Your task to perform on an android device: change the clock style Image 0: 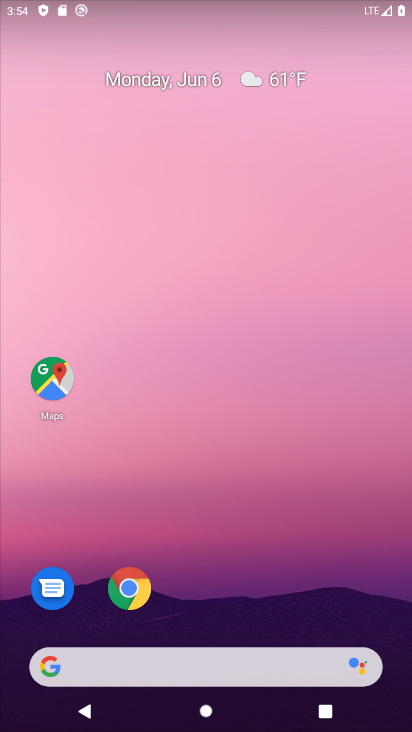
Step 0: drag from (243, 530) to (213, 294)
Your task to perform on an android device: change the clock style Image 1: 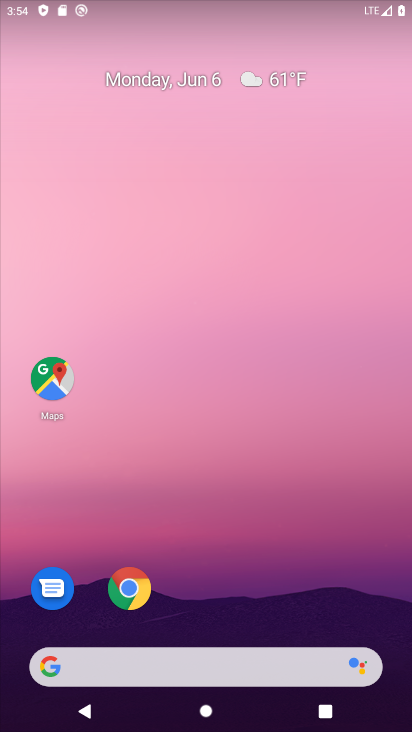
Step 1: drag from (243, 633) to (157, 75)
Your task to perform on an android device: change the clock style Image 2: 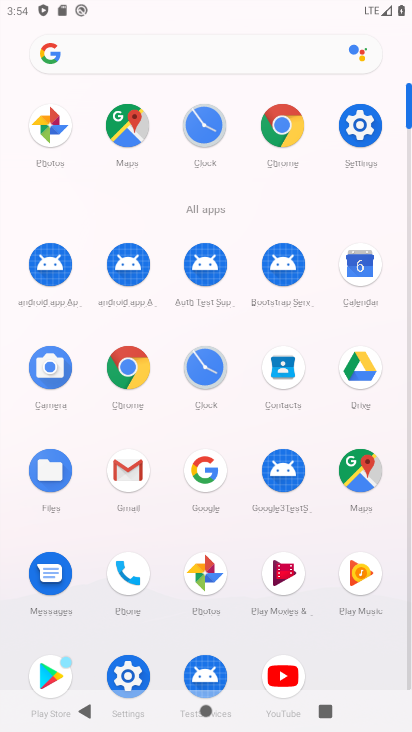
Step 2: click (205, 376)
Your task to perform on an android device: change the clock style Image 3: 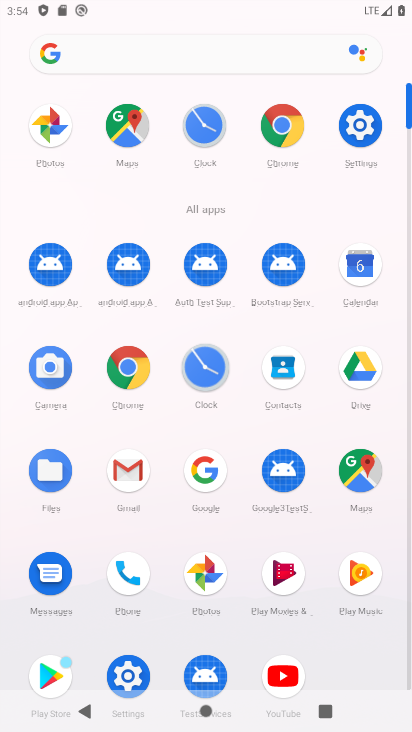
Step 3: click (204, 376)
Your task to perform on an android device: change the clock style Image 4: 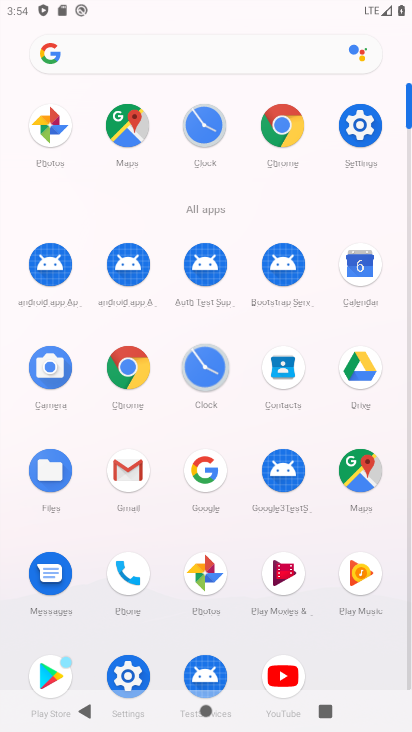
Step 4: click (204, 376)
Your task to perform on an android device: change the clock style Image 5: 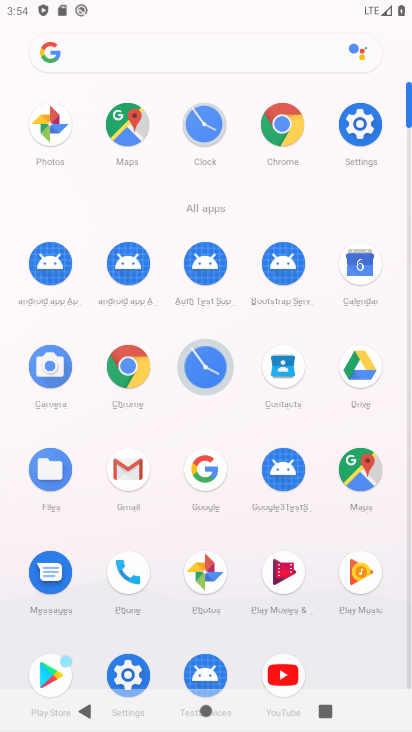
Step 5: click (204, 376)
Your task to perform on an android device: change the clock style Image 6: 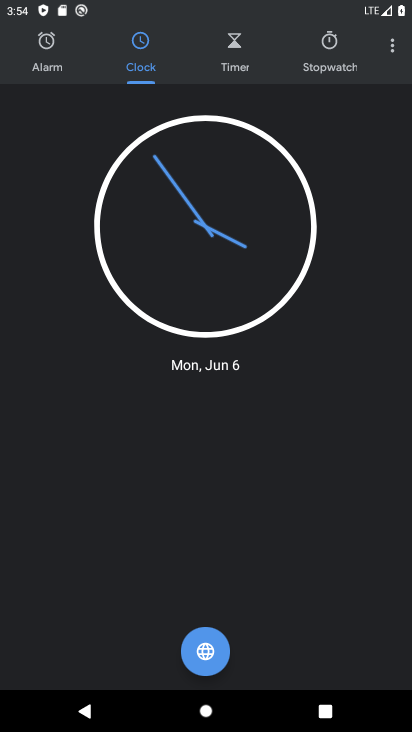
Step 6: click (204, 376)
Your task to perform on an android device: change the clock style Image 7: 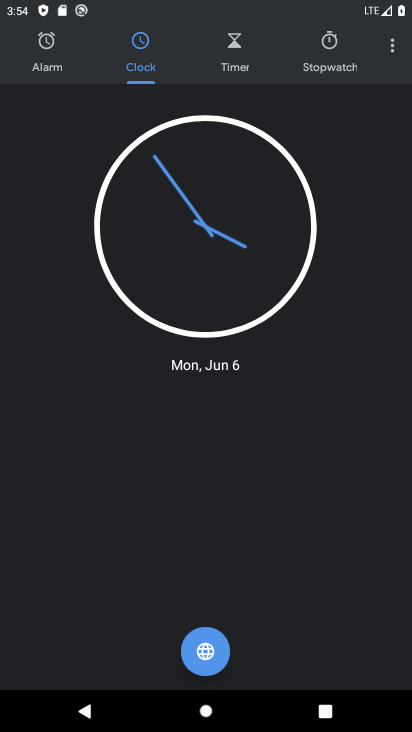
Step 7: click (204, 376)
Your task to perform on an android device: change the clock style Image 8: 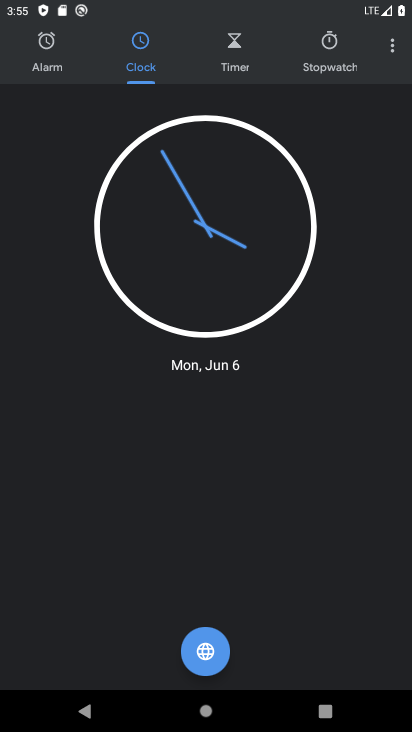
Step 8: click (382, 32)
Your task to perform on an android device: change the clock style Image 9: 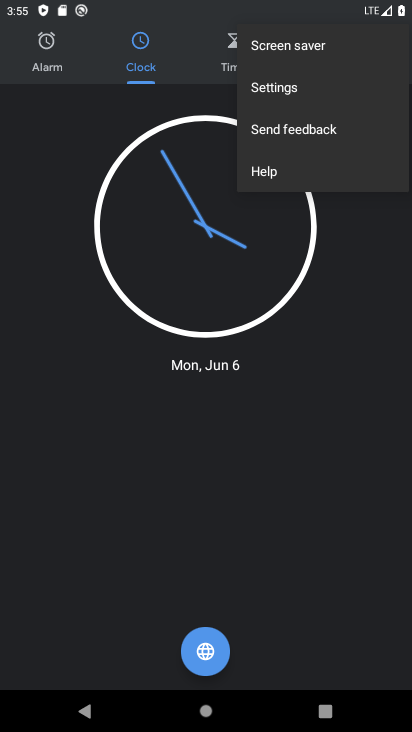
Step 9: click (282, 89)
Your task to perform on an android device: change the clock style Image 10: 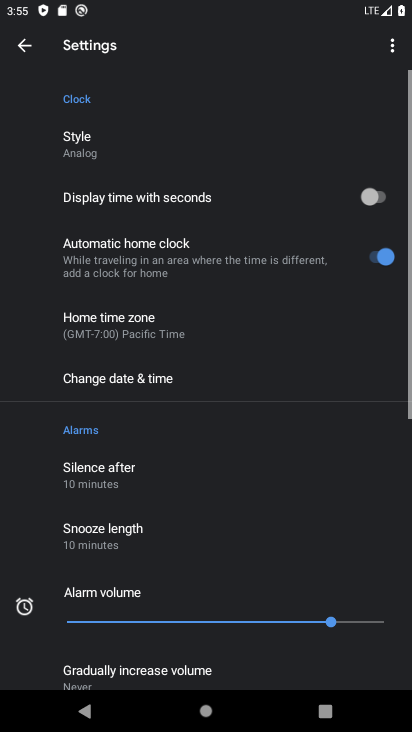
Step 10: click (141, 138)
Your task to perform on an android device: change the clock style Image 11: 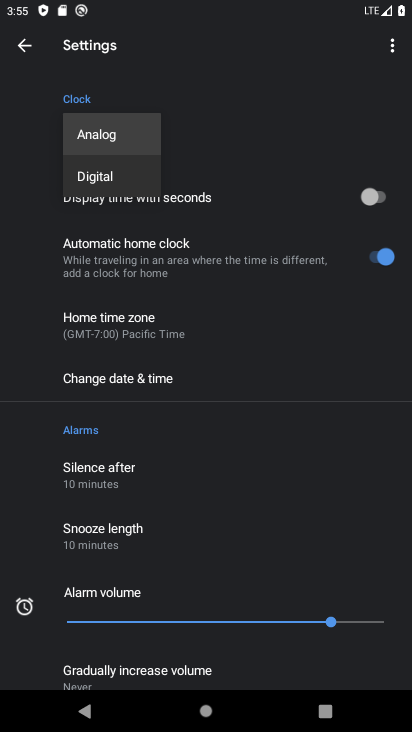
Step 11: click (88, 177)
Your task to perform on an android device: change the clock style Image 12: 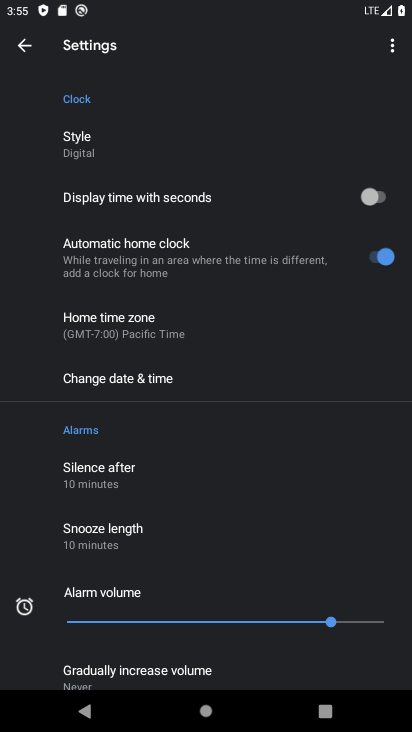
Step 12: task complete